Your task to perform on an android device: show emergency info Image 0: 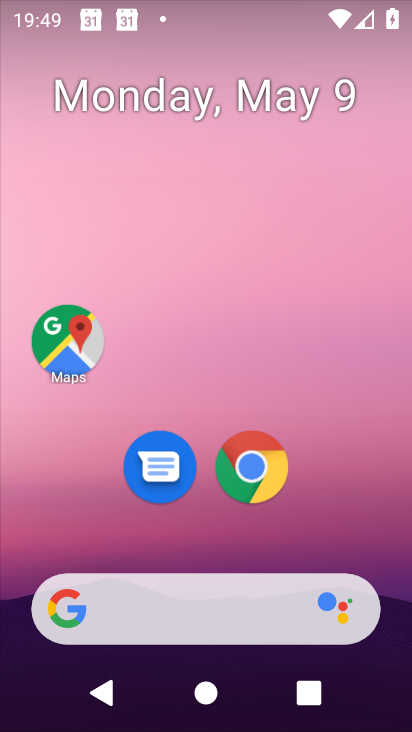
Step 0: drag from (359, 488) to (374, 118)
Your task to perform on an android device: show emergency info Image 1: 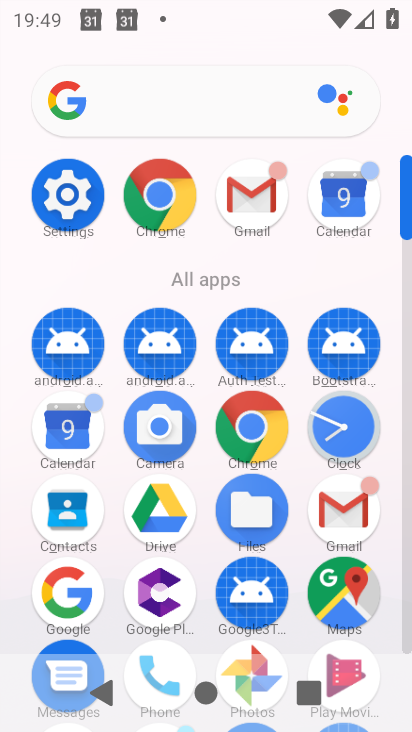
Step 1: click (89, 214)
Your task to perform on an android device: show emergency info Image 2: 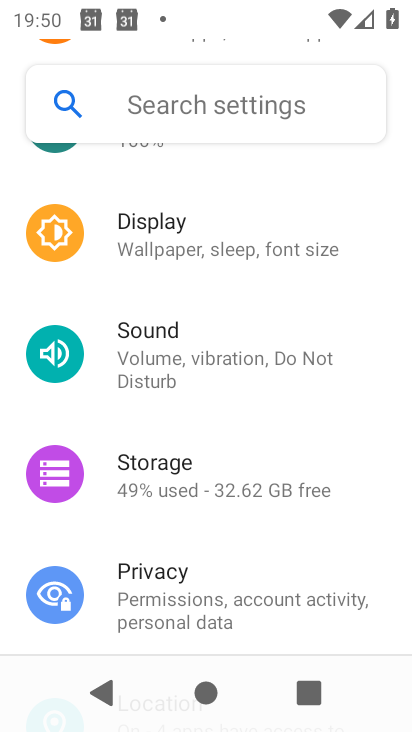
Step 2: drag from (225, 578) to (246, 162)
Your task to perform on an android device: show emergency info Image 3: 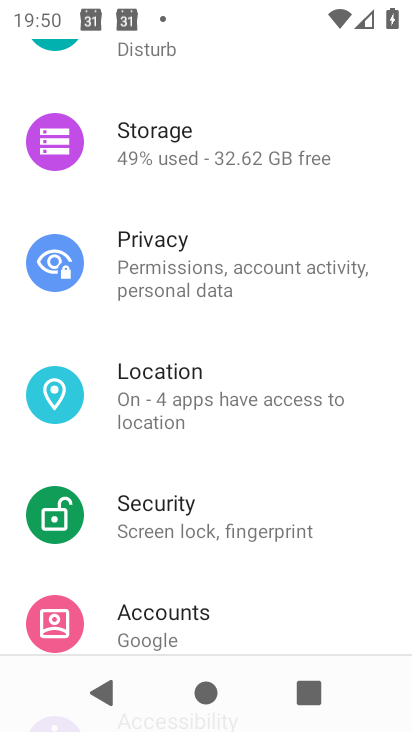
Step 3: drag from (174, 578) to (283, 30)
Your task to perform on an android device: show emergency info Image 4: 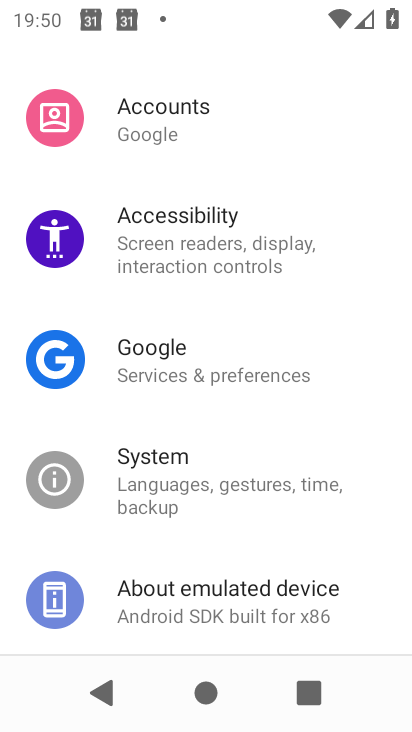
Step 4: drag from (235, 539) to (283, 176)
Your task to perform on an android device: show emergency info Image 5: 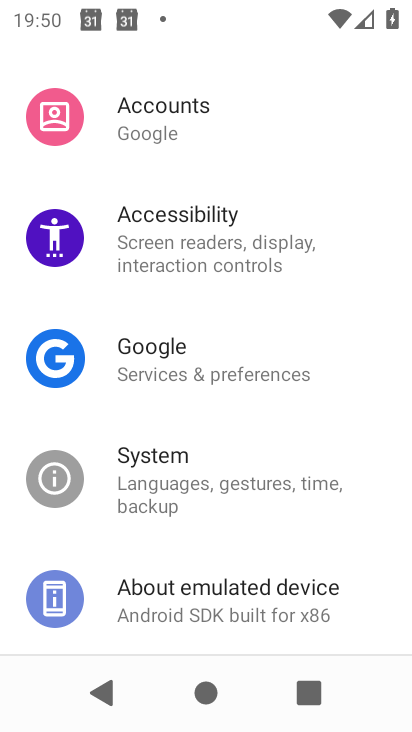
Step 5: click (220, 584)
Your task to perform on an android device: show emergency info Image 6: 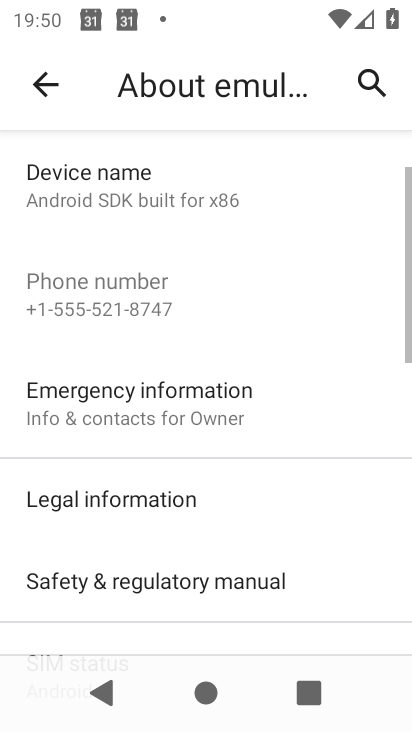
Step 6: click (213, 411)
Your task to perform on an android device: show emergency info Image 7: 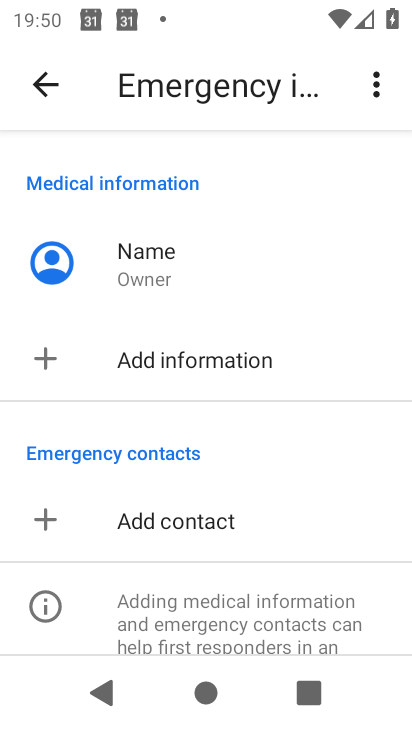
Step 7: task complete